Your task to perform on an android device: change keyboard looks Image 0: 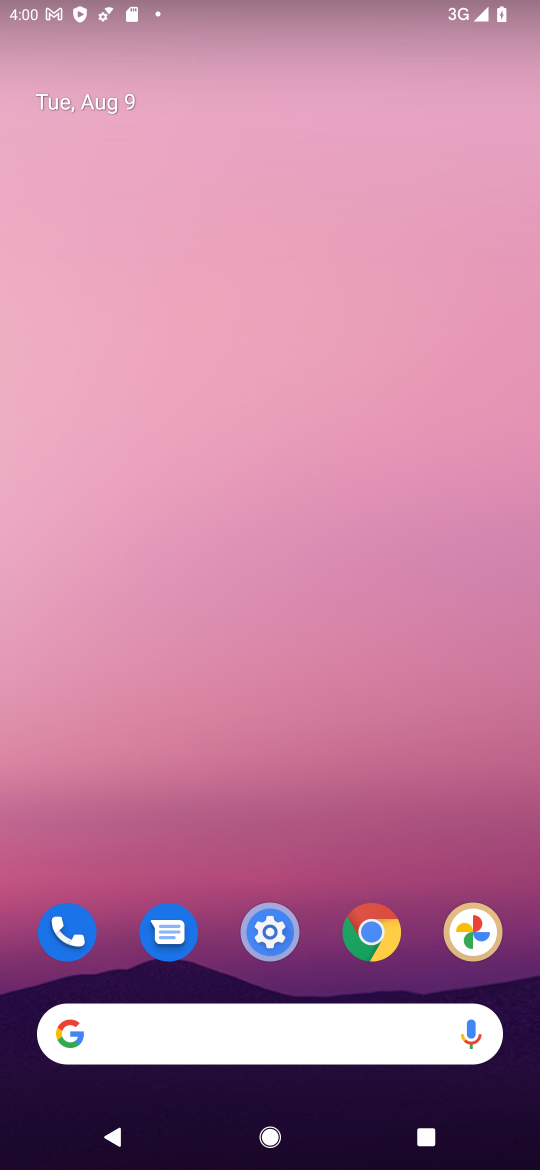
Step 0: drag from (294, 1026) to (349, 245)
Your task to perform on an android device: change keyboard looks Image 1: 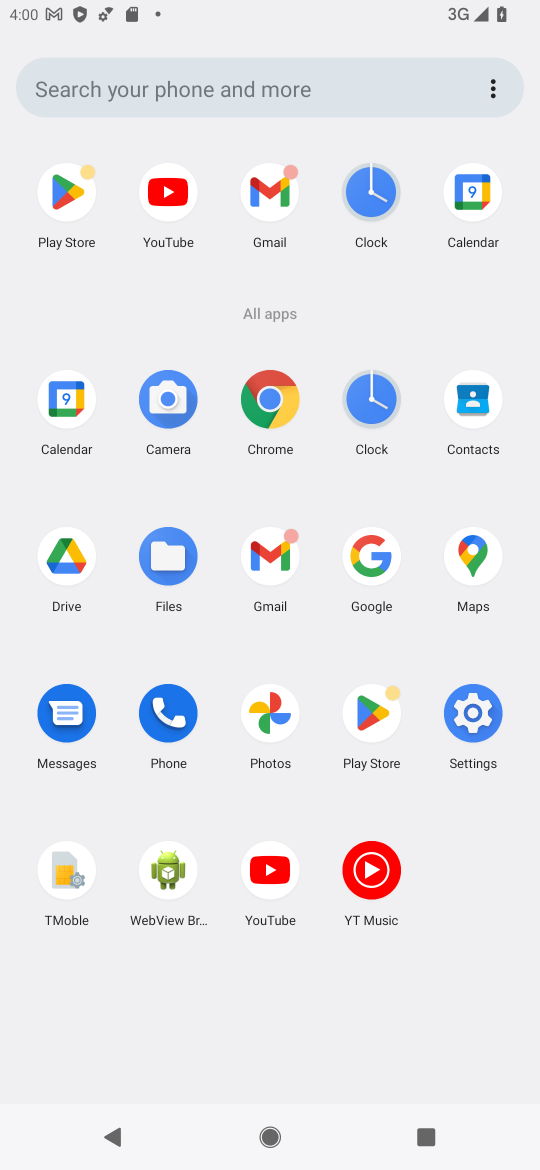
Step 1: click (468, 709)
Your task to perform on an android device: change keyboard looks Image 2: 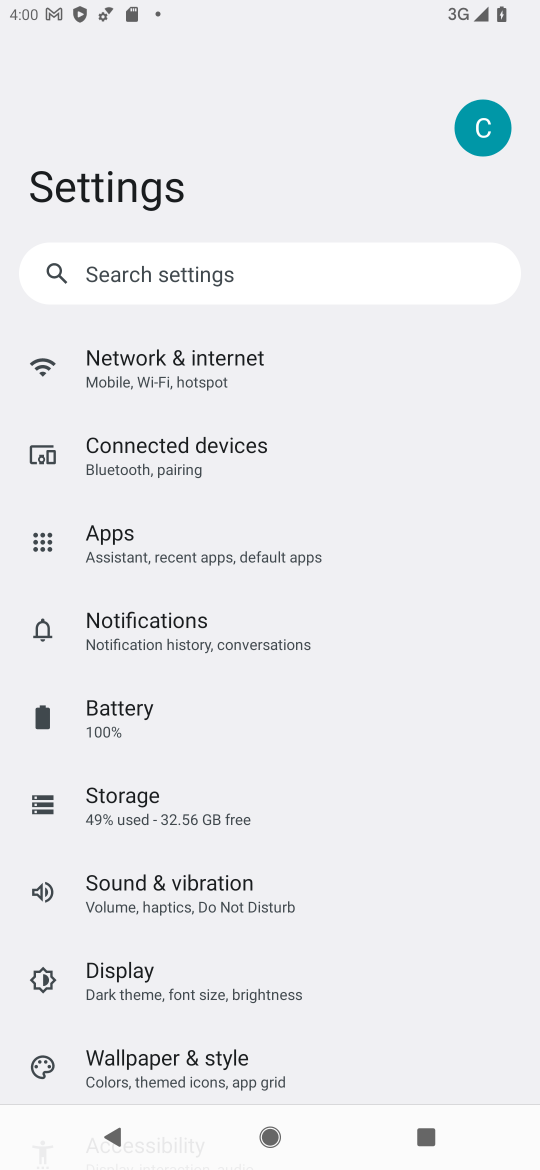
Step 2: drag from (450, 1014) to (455, 37)
Your task to perform on an android device: change keyboard looks Image 3: 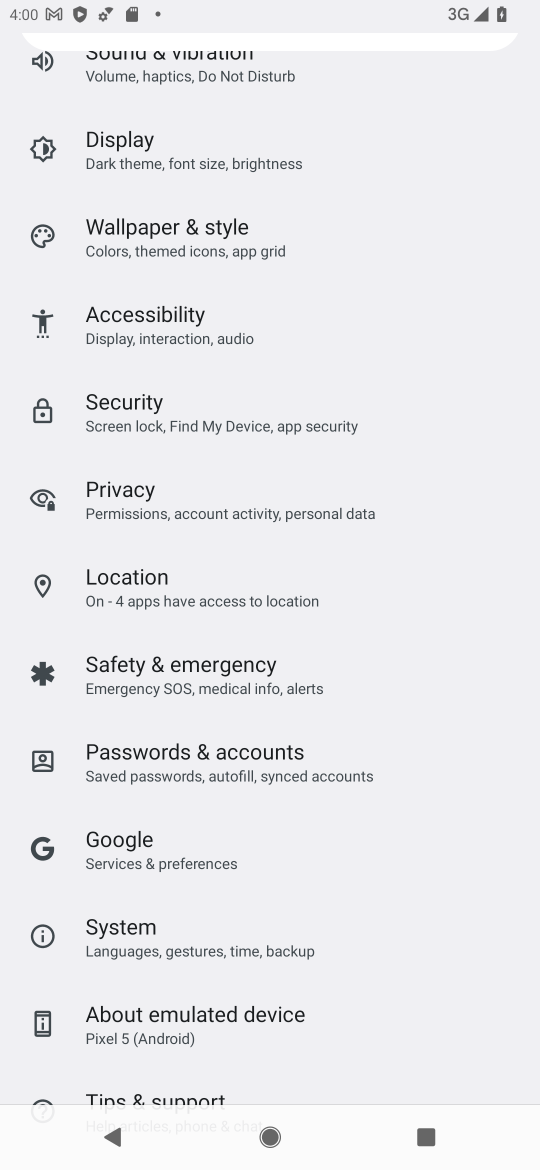
Step 3: drag from (459, 1059) to (445, 416)
Your task to perform on an android device: change keyboard looks Image 4: 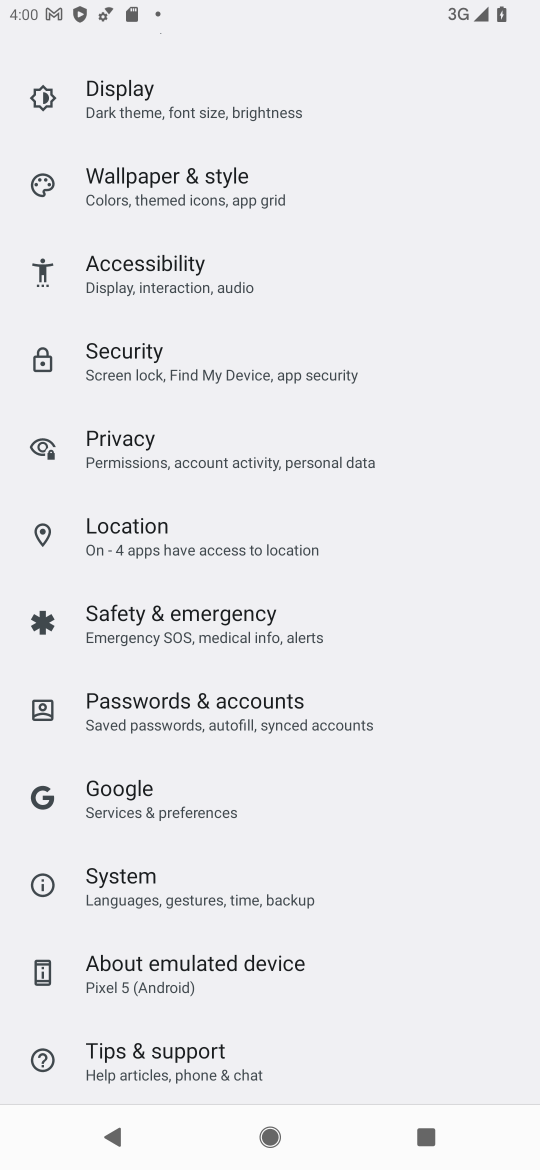
Step 4: click (330, 979)
Your task to perform on an android device: change keyboard looks Image 5: 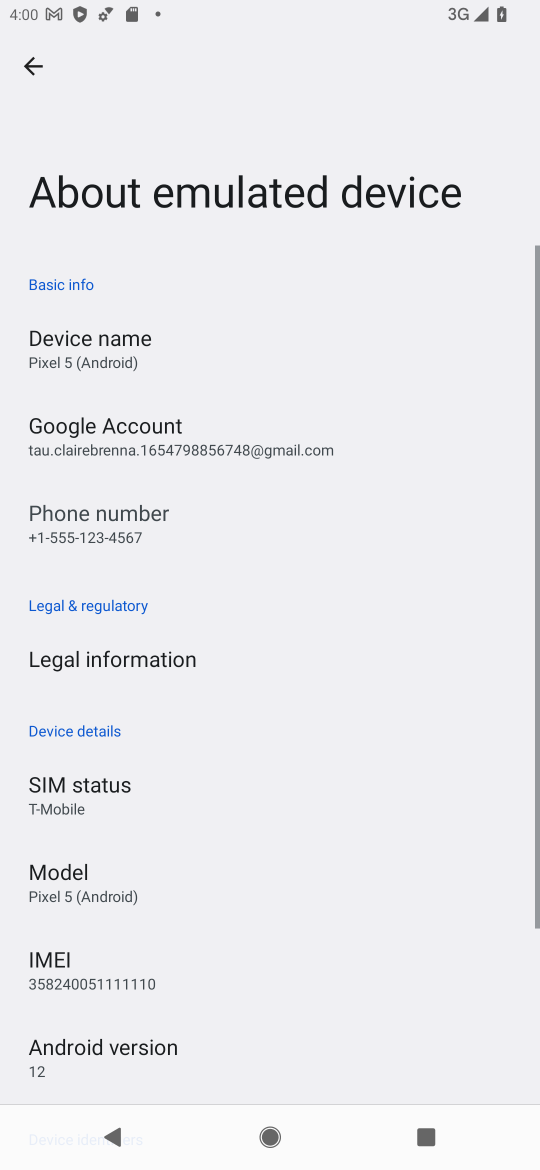
Step 5: press back button
Your task to perform on an android device: change keyboard looks Image 6: 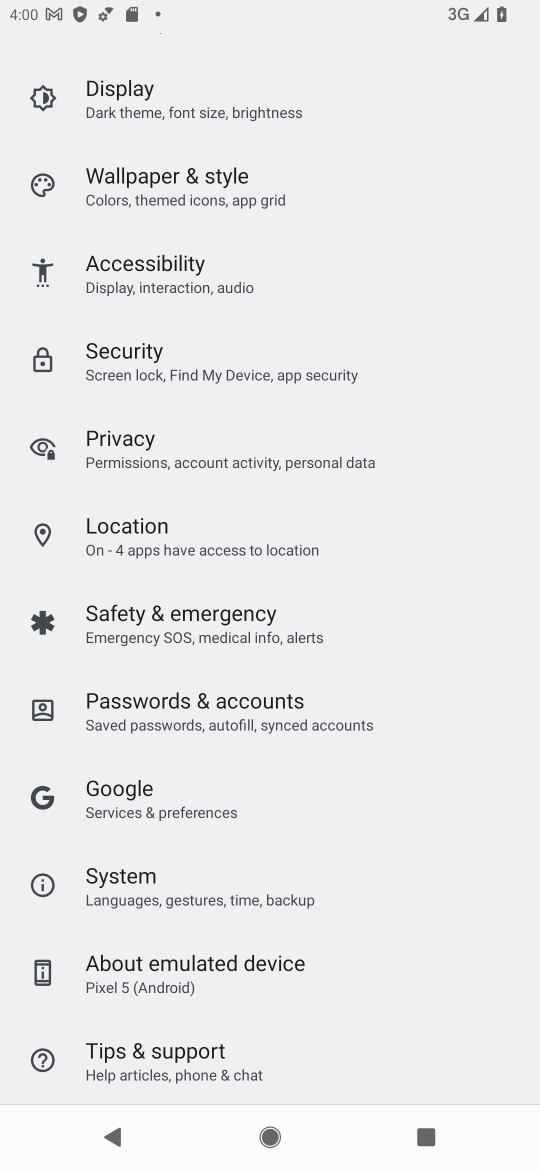
Step 6: click (152, 865)
Your task to perform on an android device: change keyboard looks Image 7: 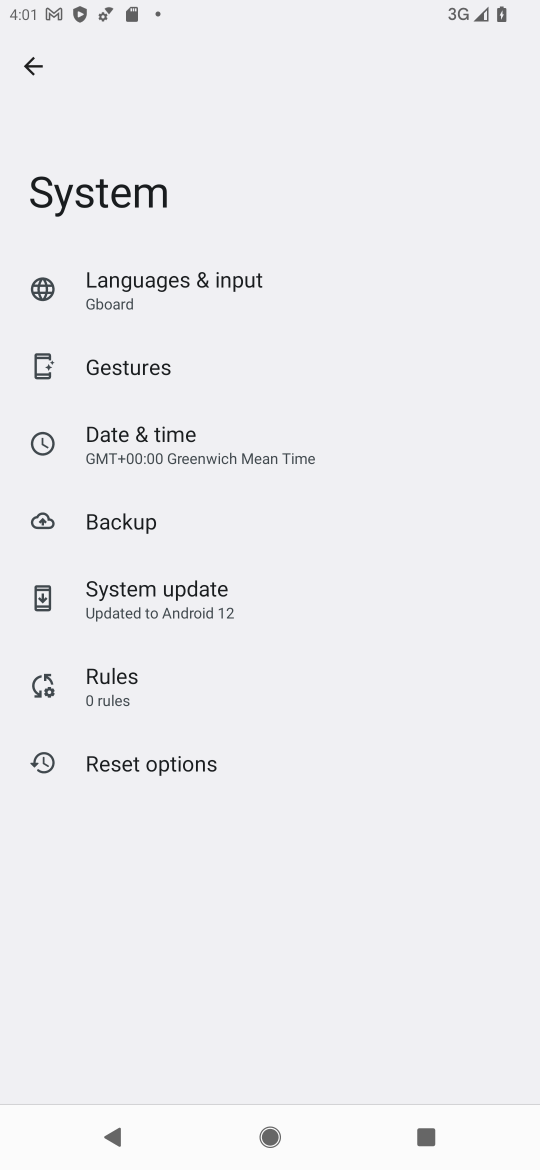
Step 7: click (168, 283)
Your task to perform on an android device: change keyboard looks Image 8: 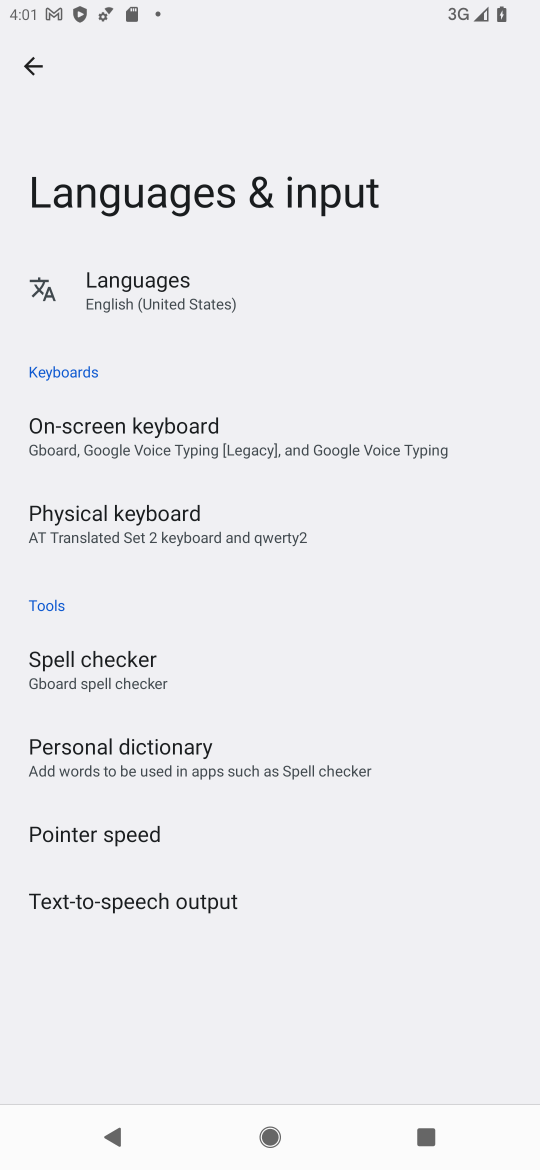
Step 8: click (107, 516)
Your task to perform on an android device: change keyboard looks Image 9: 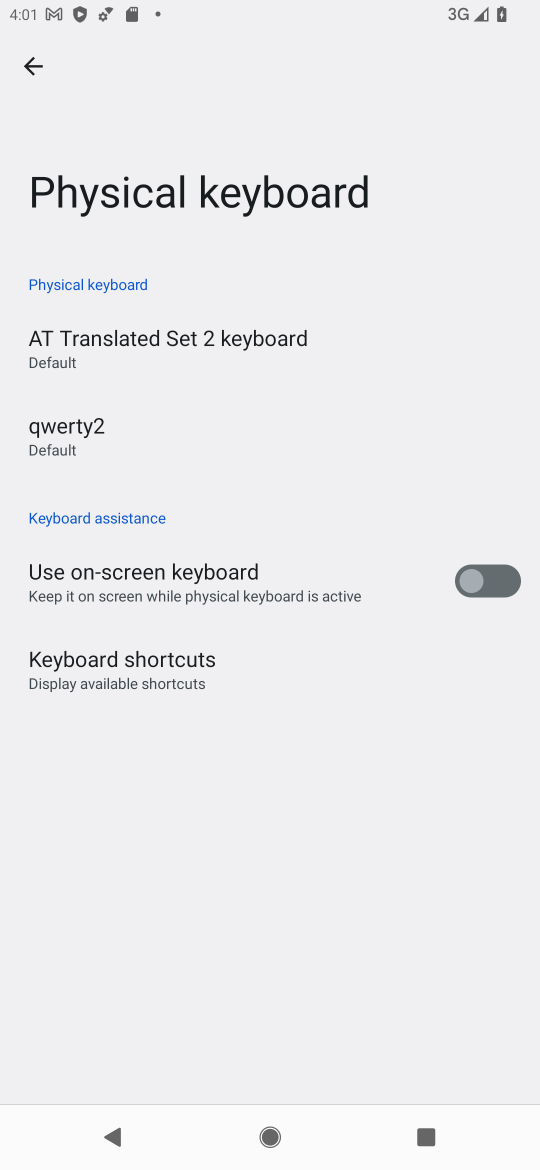
Step 9: press back button
Your task to perform on an android device: change keyboard looks Image 10: 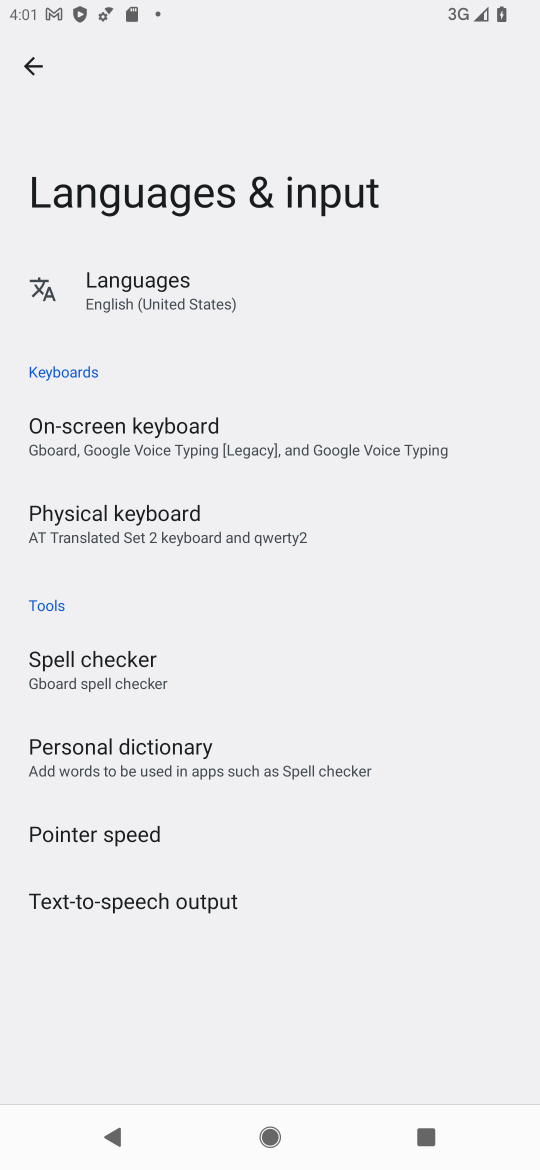
Step 10: click (244, 432)
Your task to perform on an android device: change keyboard looks Image 11: 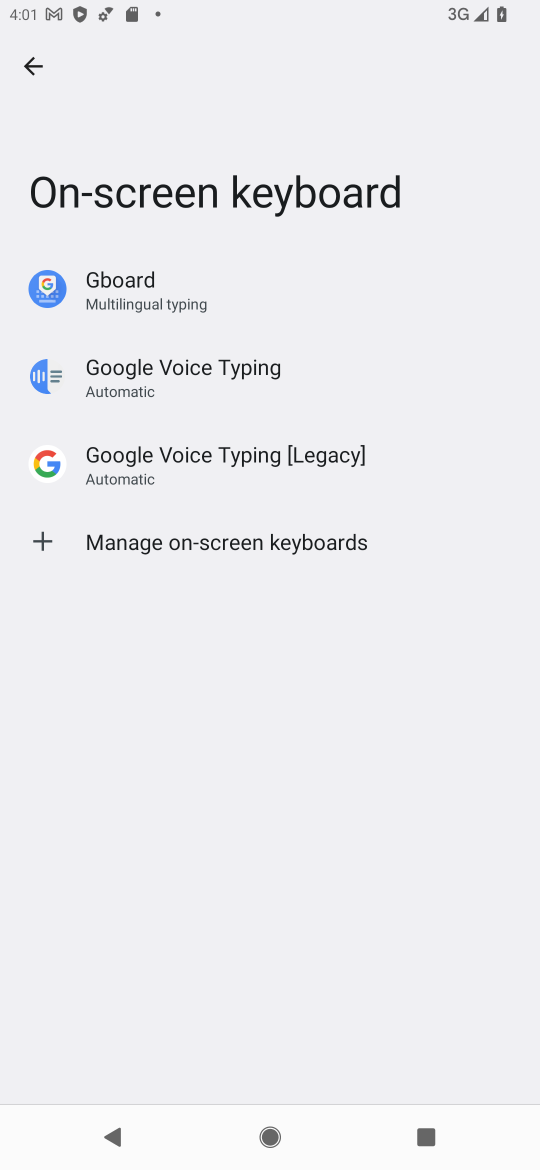
Step 11: click (225, 318)
Your task to perform on an android device: change keyboard looks Image 12: 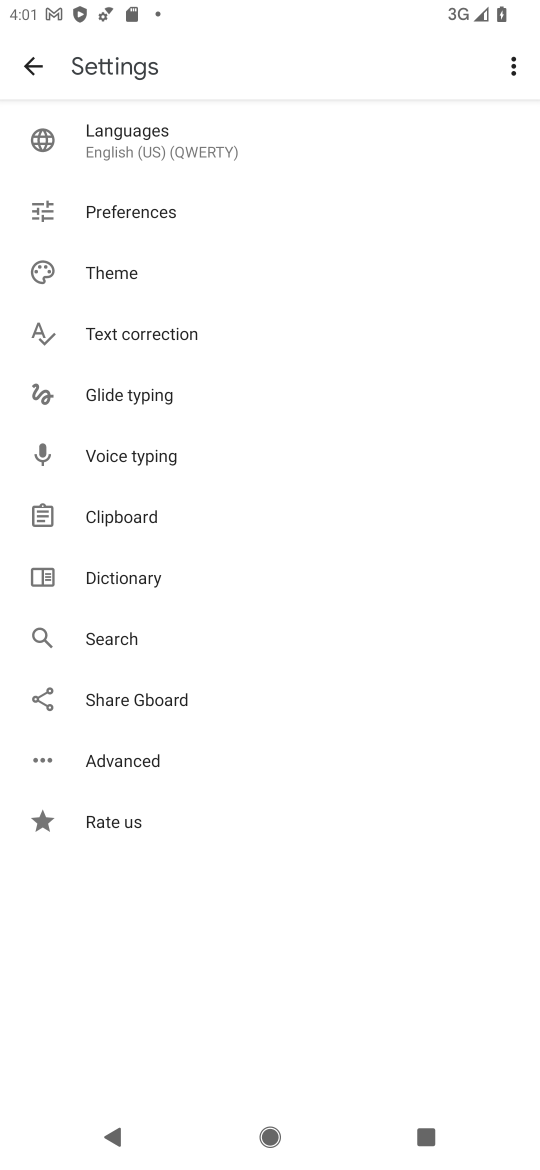
Step 12: click (143, 284)
Your task to perform on an android device: change keyboard looks Image 13: 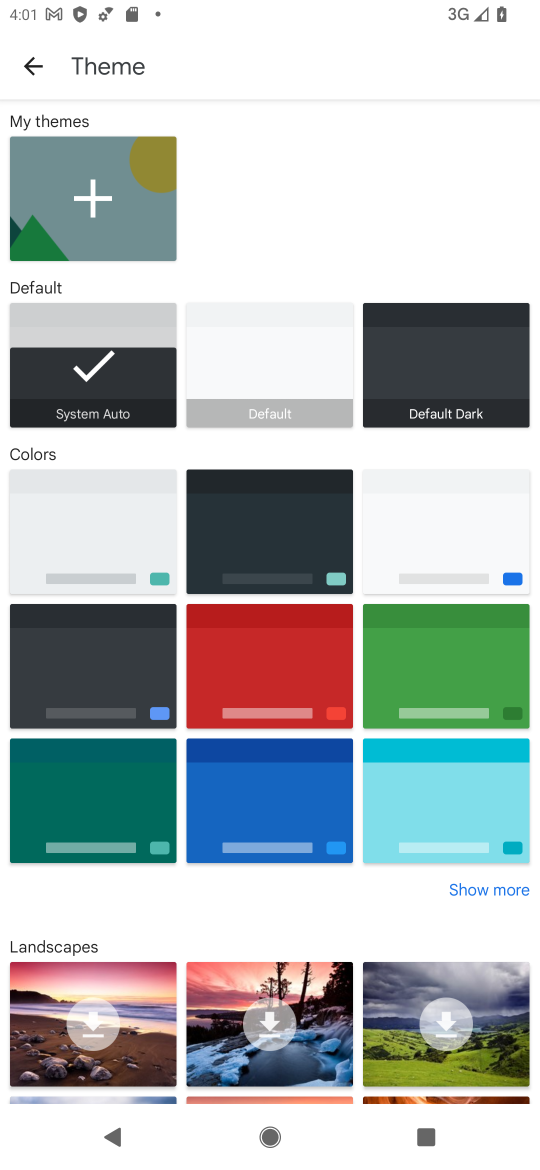
Step 13: click (261, 529)
Your task to perform on an android device: change keyboard looks Image 14: 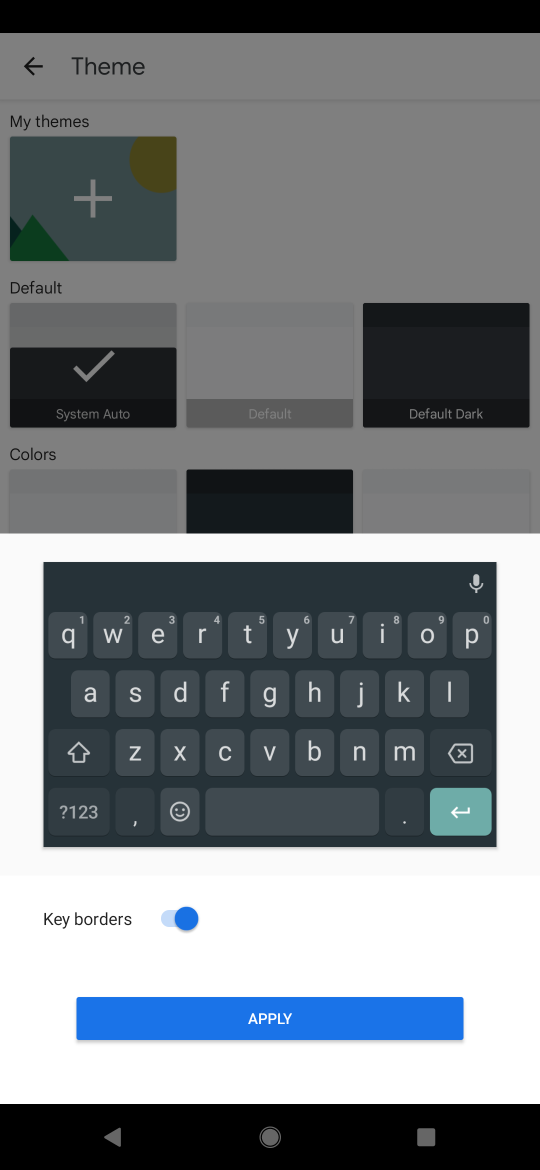
Step 14: click (316, 1007)
Your task to perform on an android device: change keyboard looks Image 15: 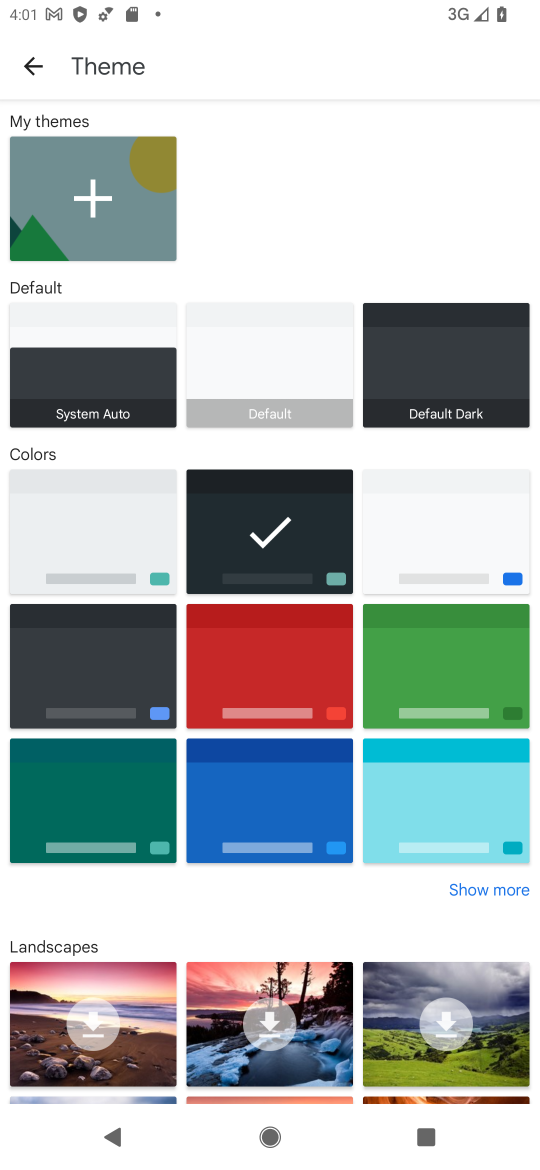
Step 15: task complete